Your task to perform on an android device: remove spam from my inbox in the gmail app Image 0: 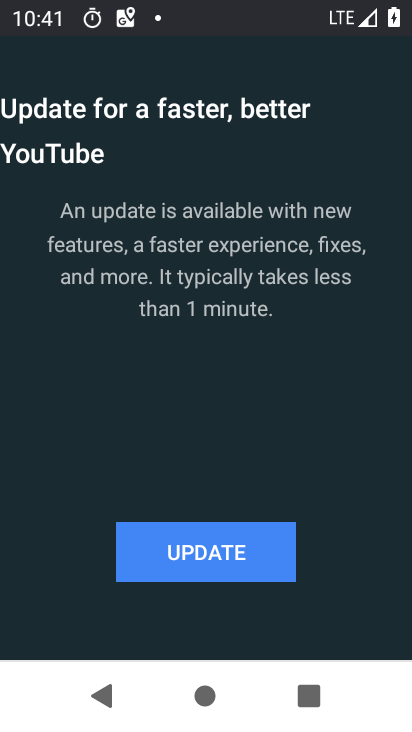
Step 0: press home button
Your task to perform on an android device: remove spam from my inbox in the gmail app Image 1: 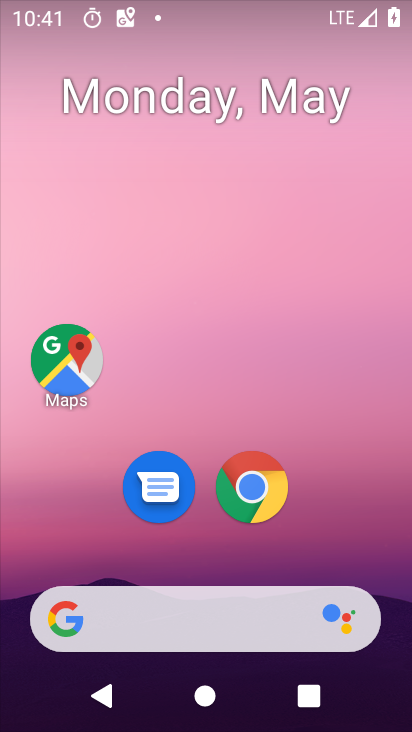
Step 1: drag from (314, 538) to (354, 113)
Your task to perform on an android device: remove spam from my inbox in the gmail app Image 2: 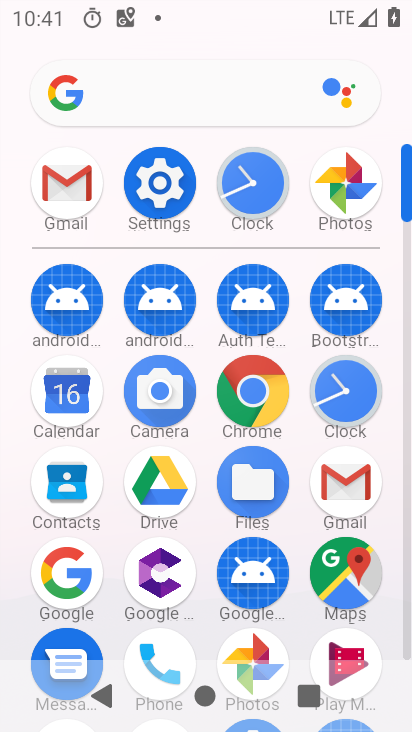
Step 2: click (351, 482)
Your task to perform on an android device: remove spam from my inbox in the gmail app Image 3: 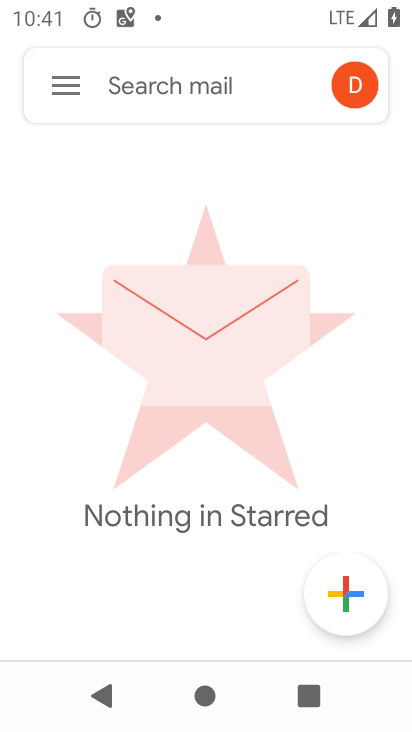
Step 3: click (41, 80)
Your task to perform on an android device: remove spam from my inbox in the gmail app Image 4: 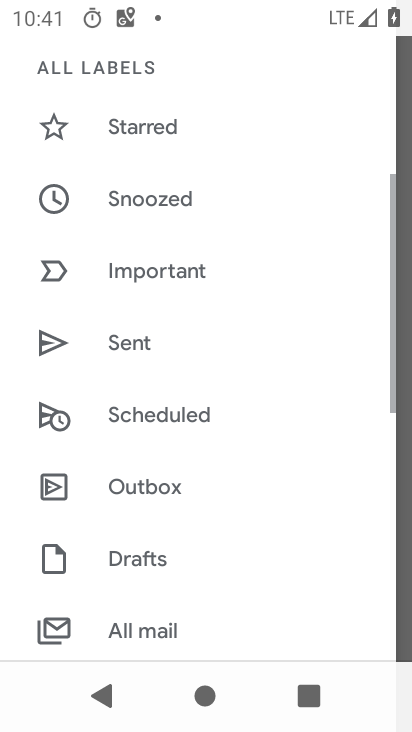
Step 4: drag from (155, 601) to (169, 449)
Your task to perform on an android device: remove spam from my inbox in the gmail app Image 5: 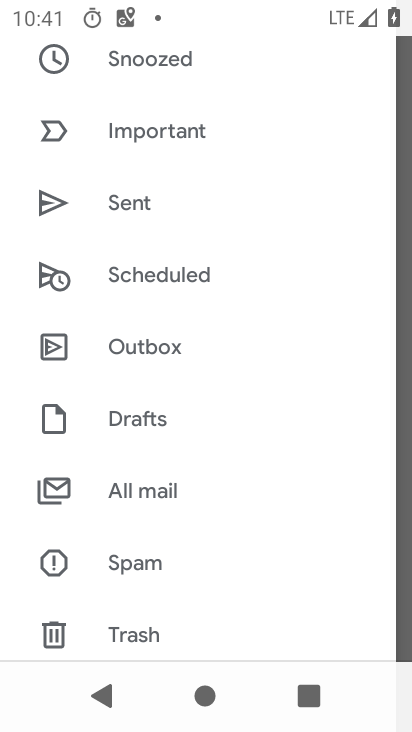
Step 5: click (142, 562)
Your task to perform on an android device: remove spam from my inbox in the gmail app Image 6: 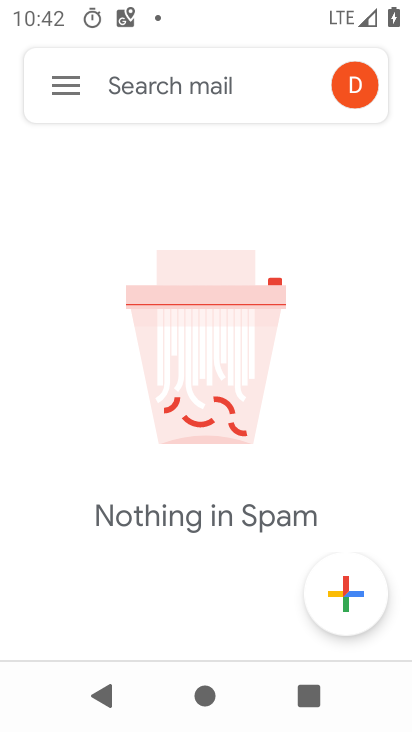
Step 6: task complete